Your task to perform on an android device: turn off wifi Image 0: 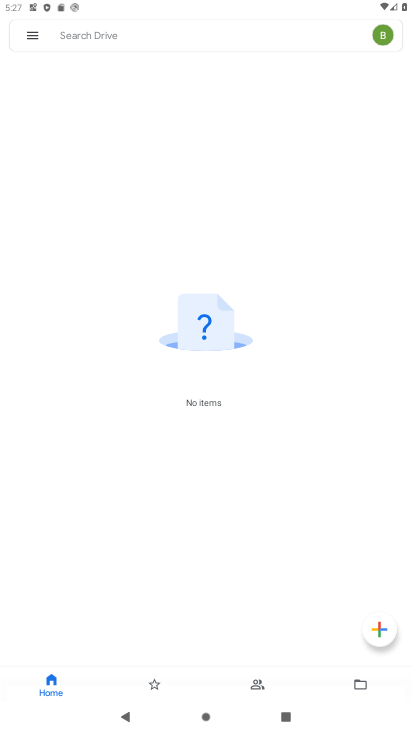
Step 0: press home button
Your task to perform on an android device: turn off wifi Image 1: 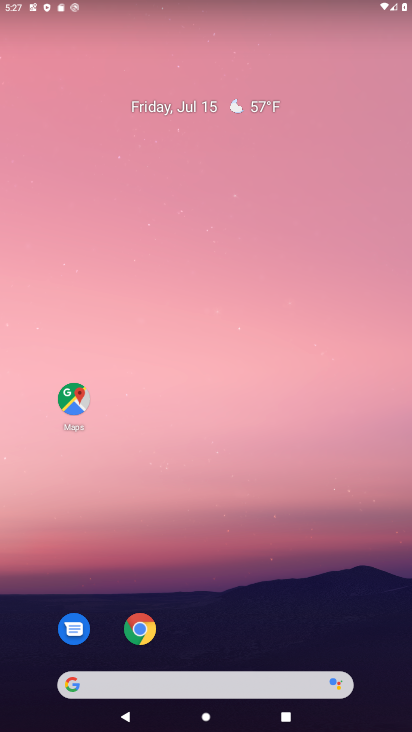
Step 1: drag from (223, 2) to (191, 539)
Your task to perform on an android device: turn off wifi Image 2: 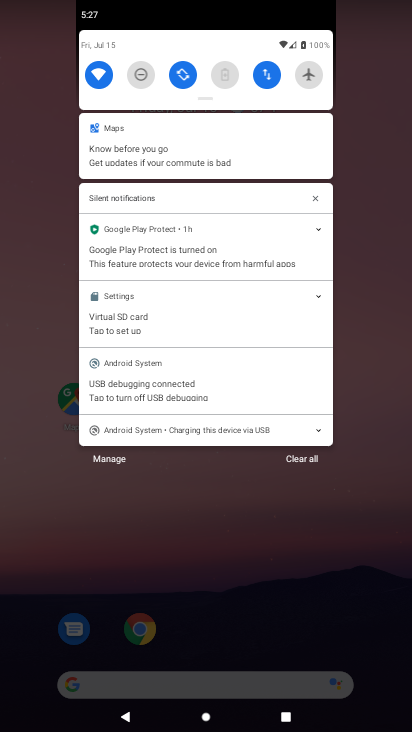
Step 2: click (94, 71)
Your task to perform on an android device: turn off wifi Image 3: 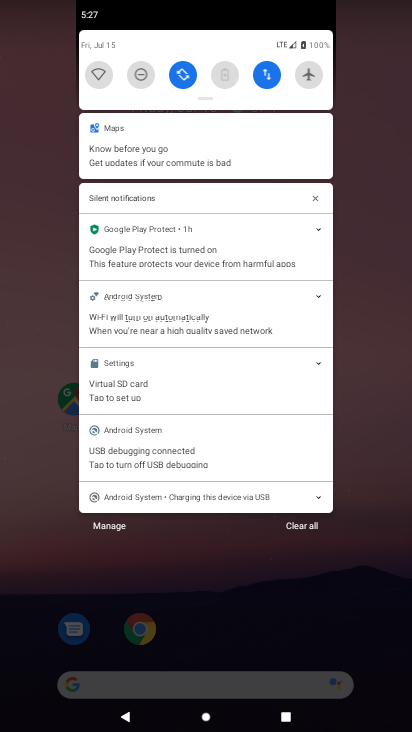
Step 3: task complete